Your task to perform on an android device: Is it going to rain today? Image 0: 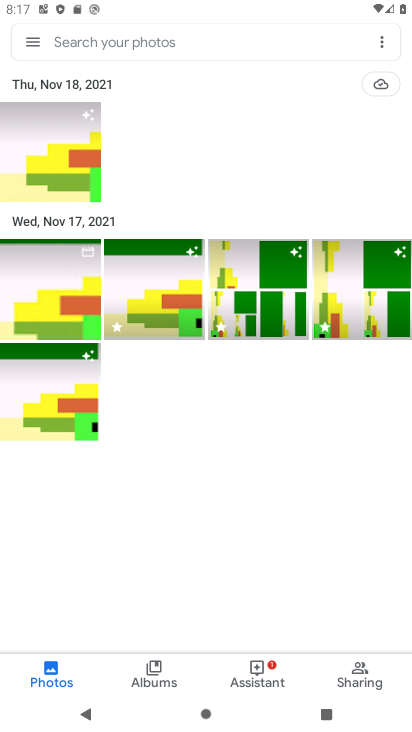
Step 0: press home button
Your task to perform on an android device: Is it going to rain today? Image 1: 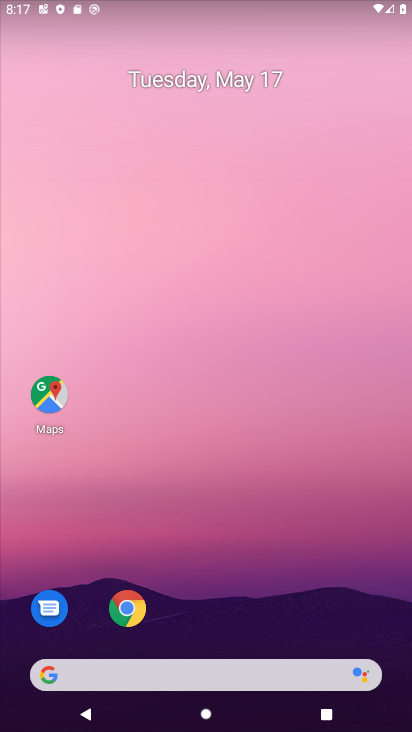
Step 1: click (242, 675)
Your task to perform on an android device: Is it going to rain today? Image 2: 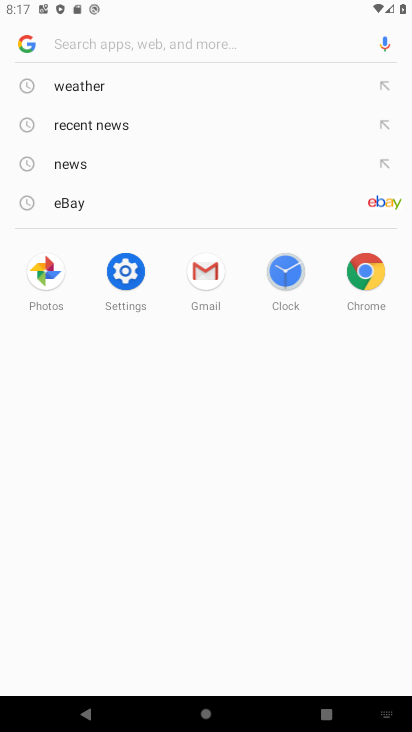
Step 2: click (80, 94)
Your task to perform on an android device: Is it going to rain today? Image 3: 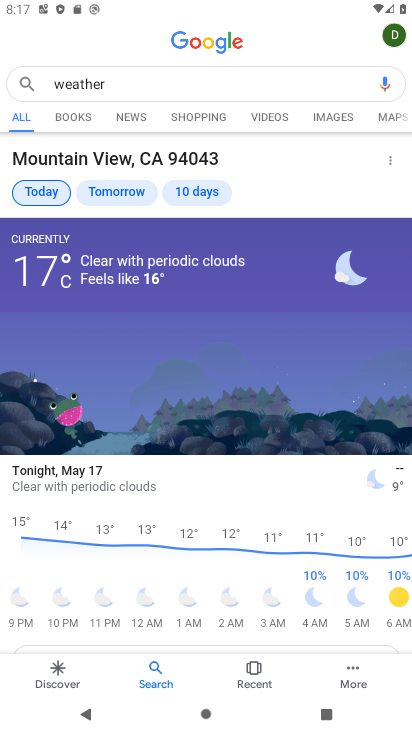
Step 3: task complete